Your task to perform on an android device: Search for the best rated vacuums on Target Image 0: 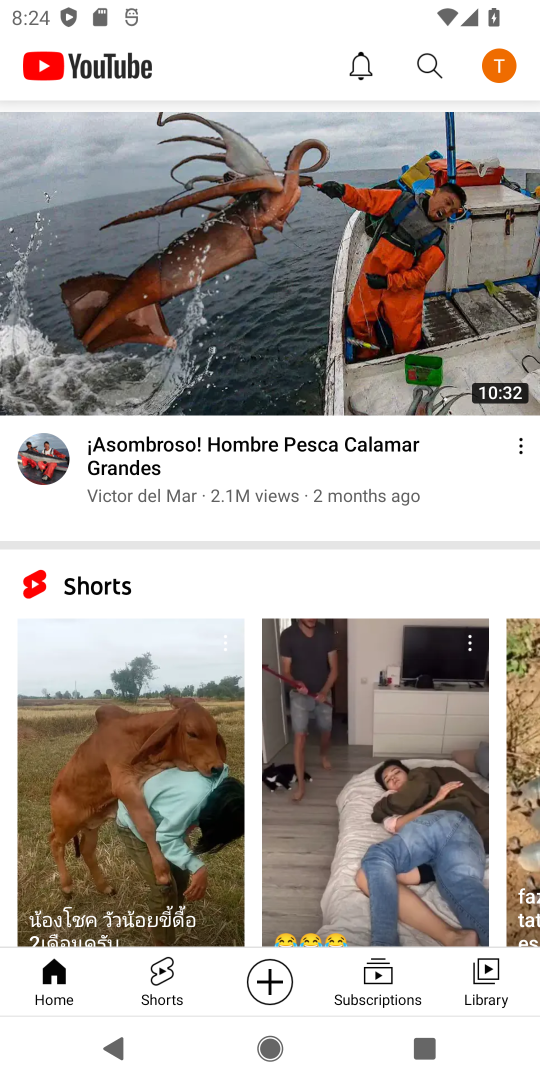
Step 0: press home button
Your task to perform on an android device: Search for the best rated vacuums on Target Image 1: 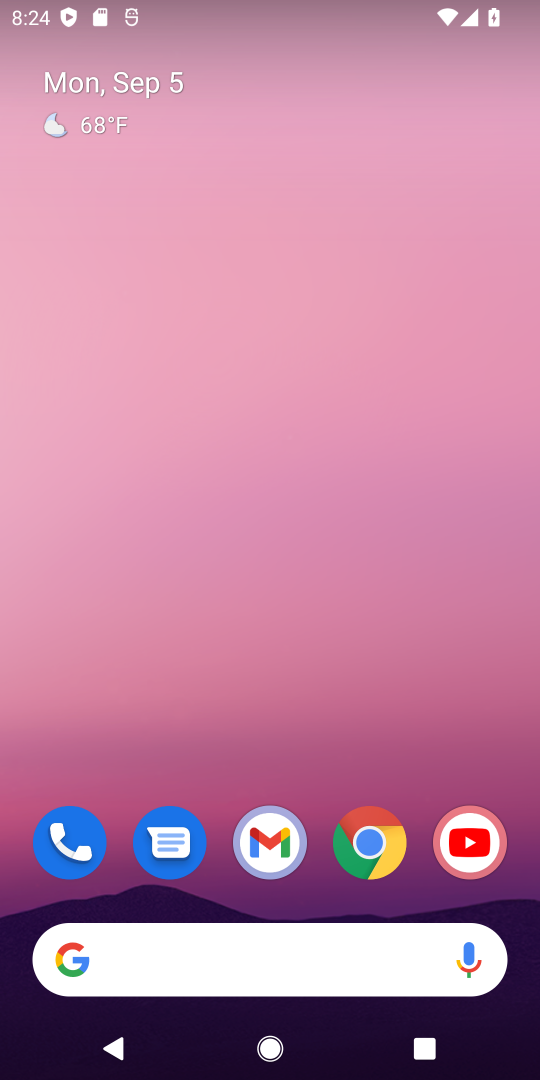
Step 1: click (362, 844)
Your task to perform on an android device: Search for the best rated vacuums on Target Image 2: 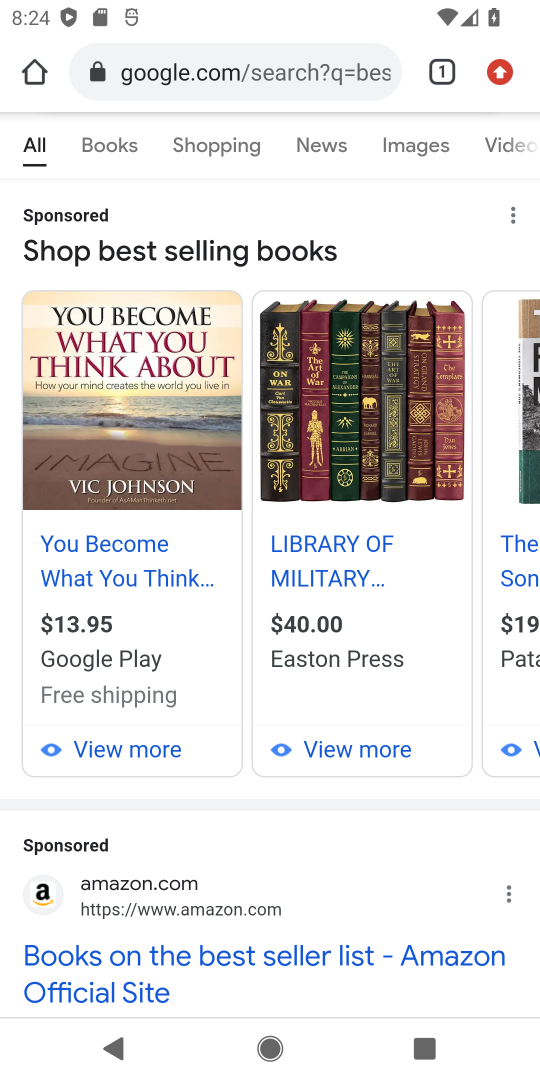
Step 2: click (345, 79)
Your task to perform on an android device: Search for the best rated vacuums on Target Image 3: 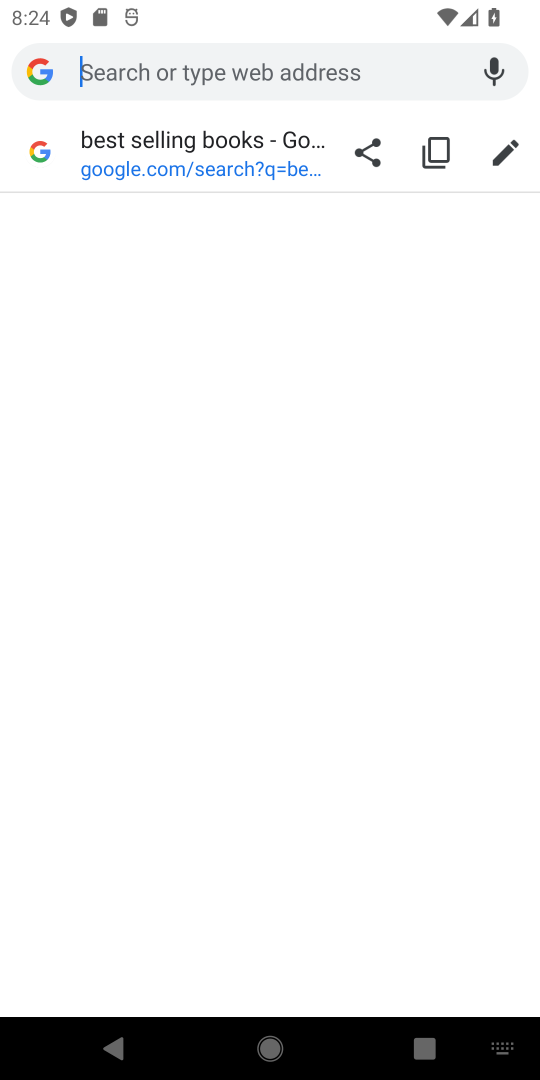
Step 3: click (365, 70)
Your task to perform on an android device: Search for the best rated vacuums on Target Image 4: 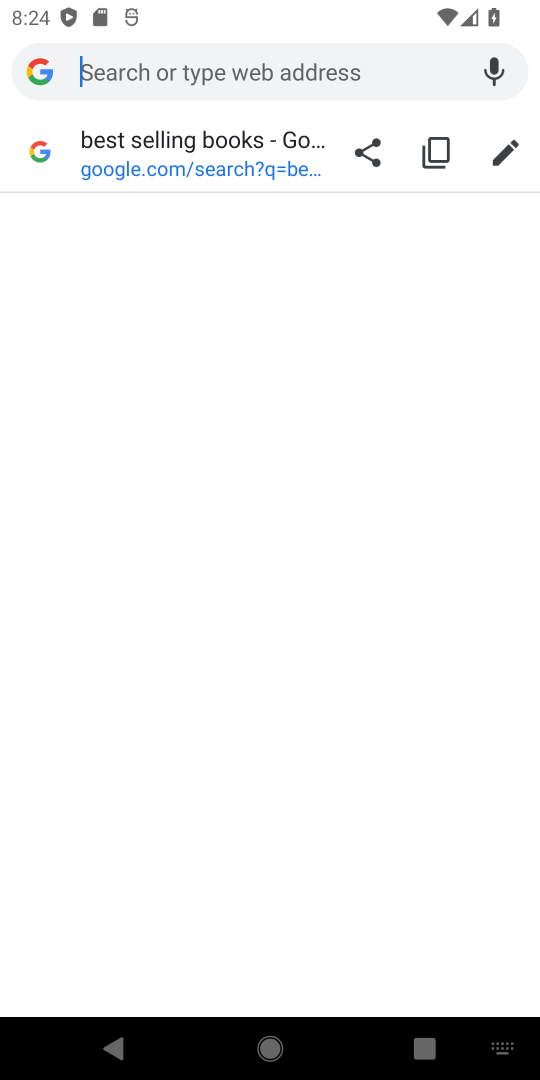
Step 4: type "Target"
Your task to perform on an android device: Search for the best rated vacuums on Target Image 5: 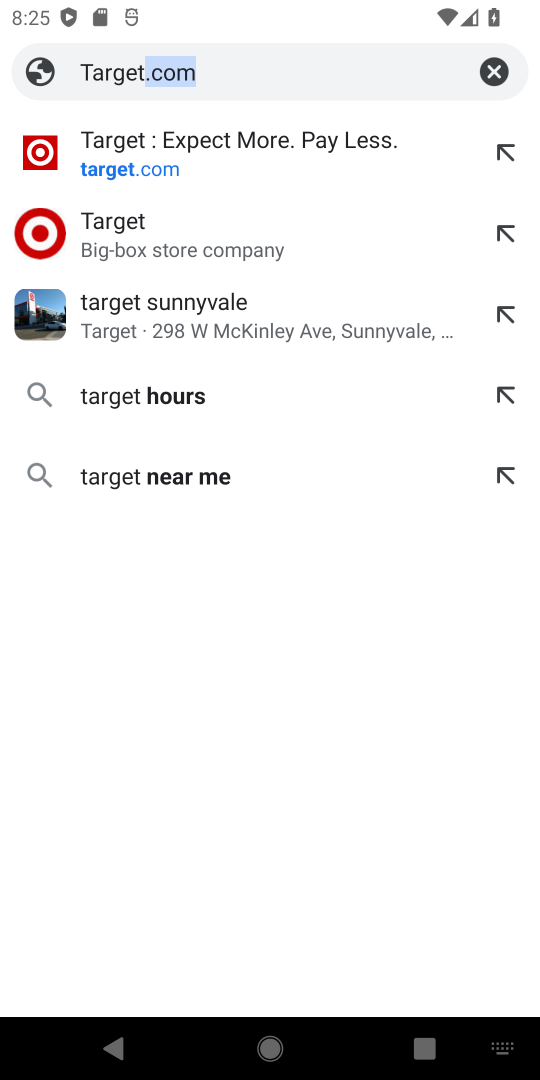
Step 5: click (158, 243)
Your task to perform on an android device: Search for the best rated vacuums on Target Image 6: 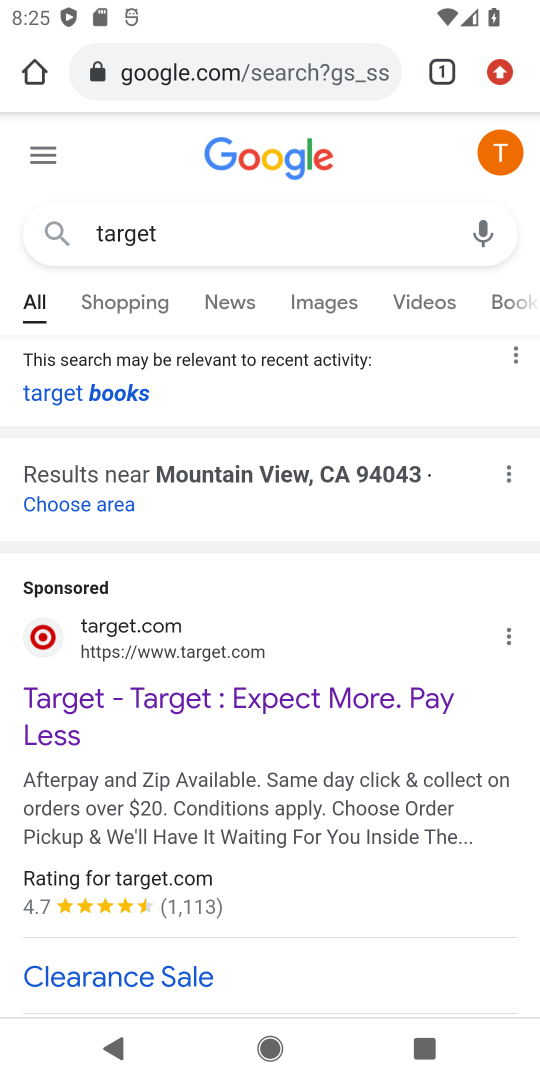
Step 6: drag from (193, 733) to (431, 425)
Your task to perform on an android device: Search for the best rated vacuums on Target Image 7: 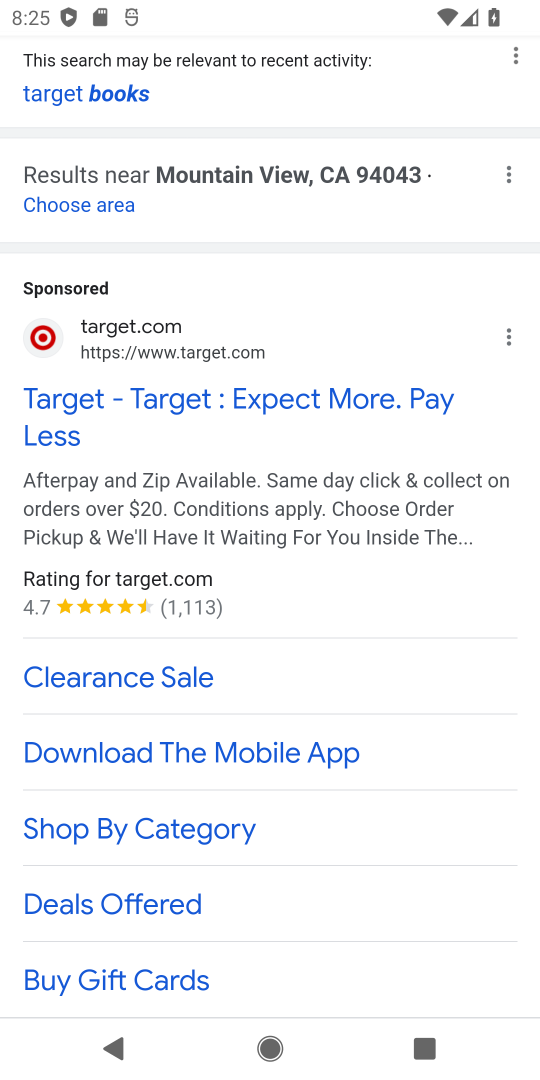
Step 7: drag from (298, 951) to (481, 519)
Your task to perform on an android device: Search for the best rated vacuums on Target Image 8: 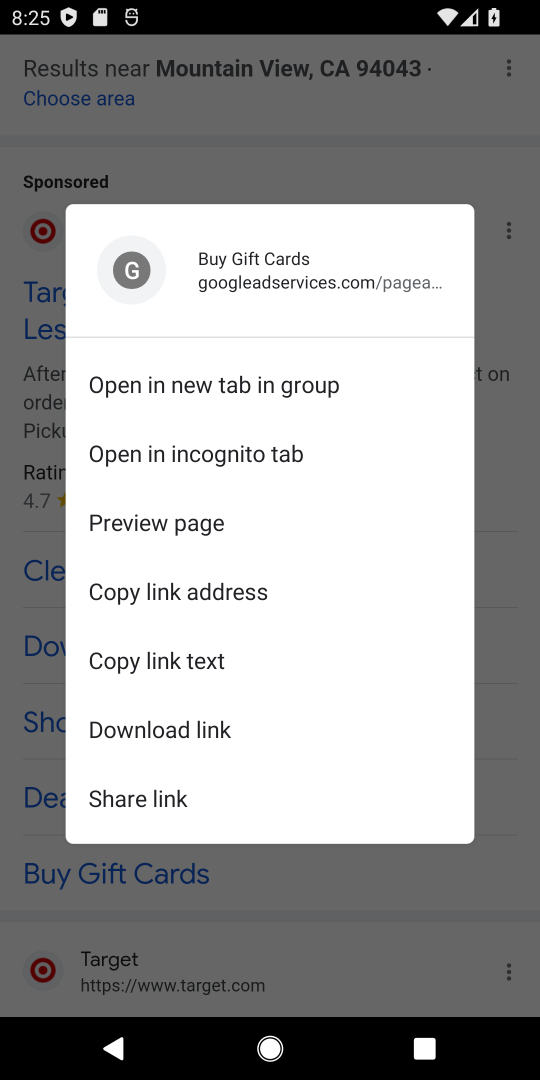
Step 8: click (513, 486)
Your task to perform on an android device: Search for the best rated vacuums on Target Image 9: 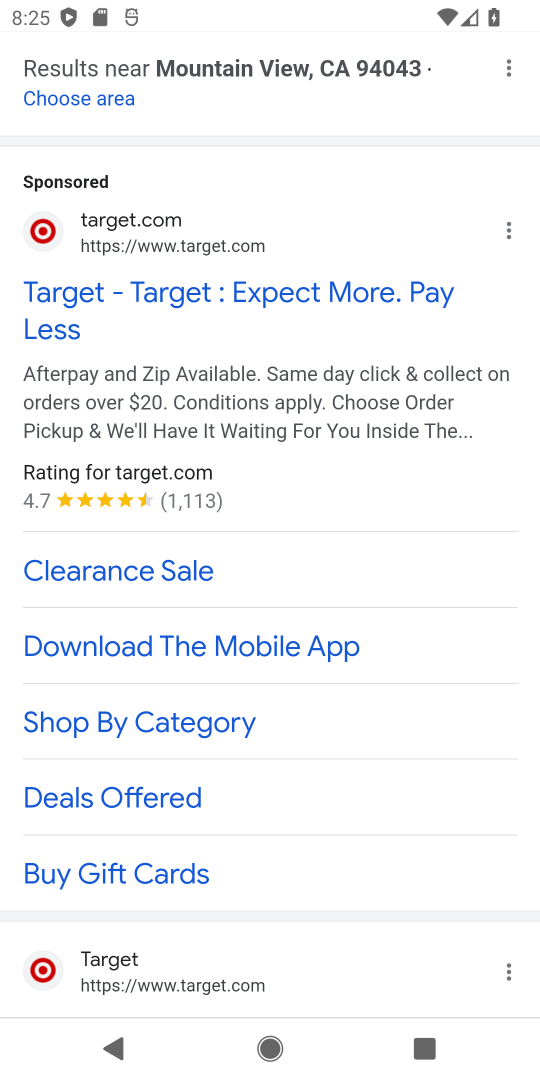
Step 9: drag from (421, 774) to (470, 622)
Your task to perform on an android device: Search for the best rated vacuums on Target Image 10: 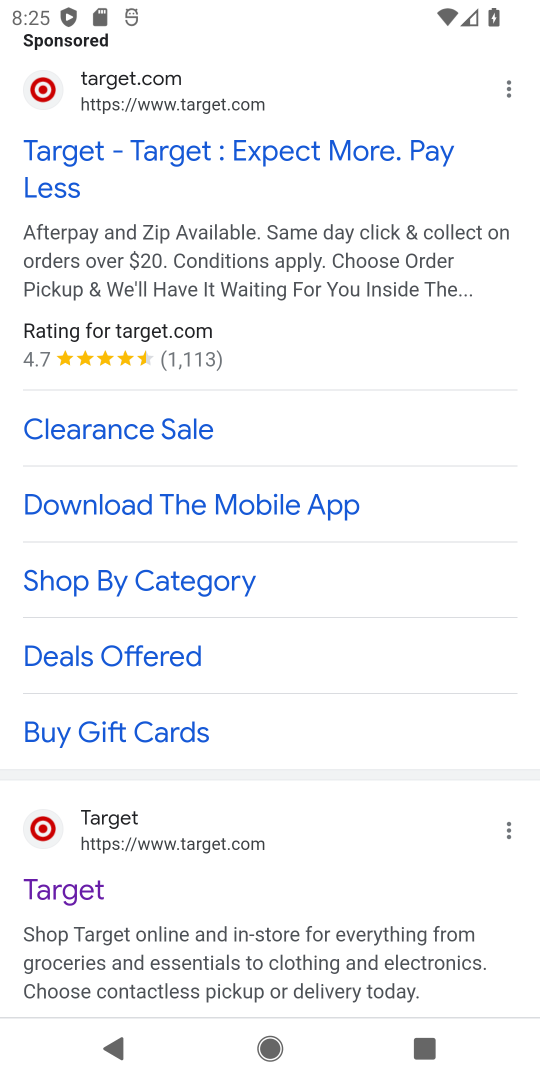
Step 10: click (72, 911)
Your task to perform on an android device: Search for the best rated vacuums on Target Image 11: 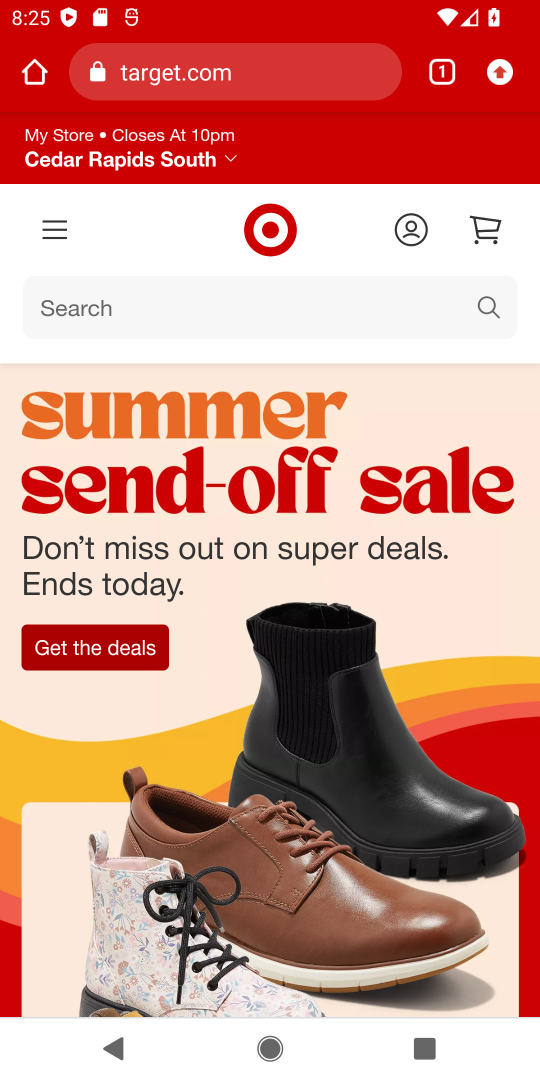
Step 11: click (327, 310)
Your task to perform on an android device: Search for the best rated vacuums on Target Image 12: 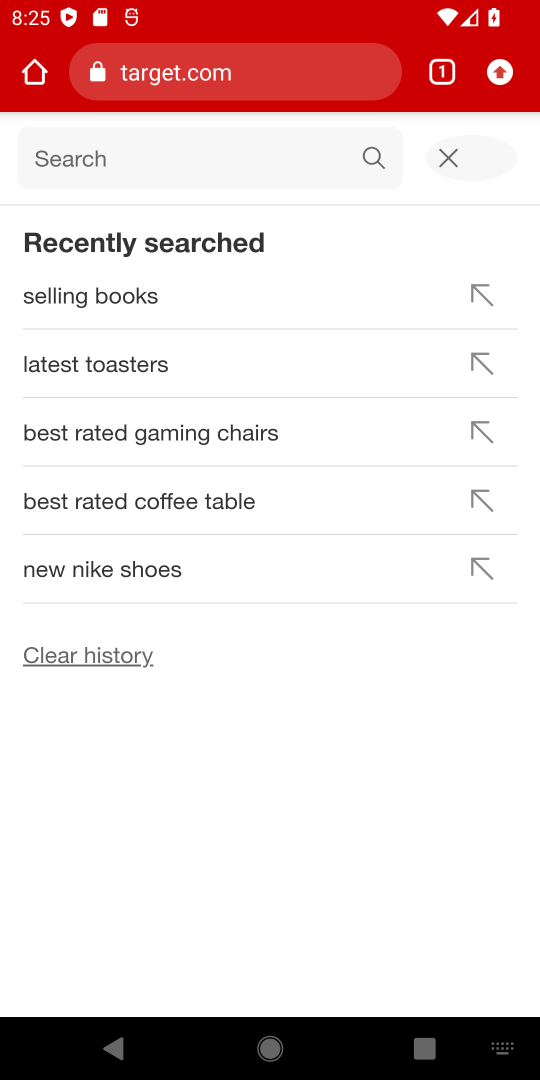
Step 12: type "best rated vacuums"
Your task to perform on an android device: Search for the best rated vacuums on Target Image 13: 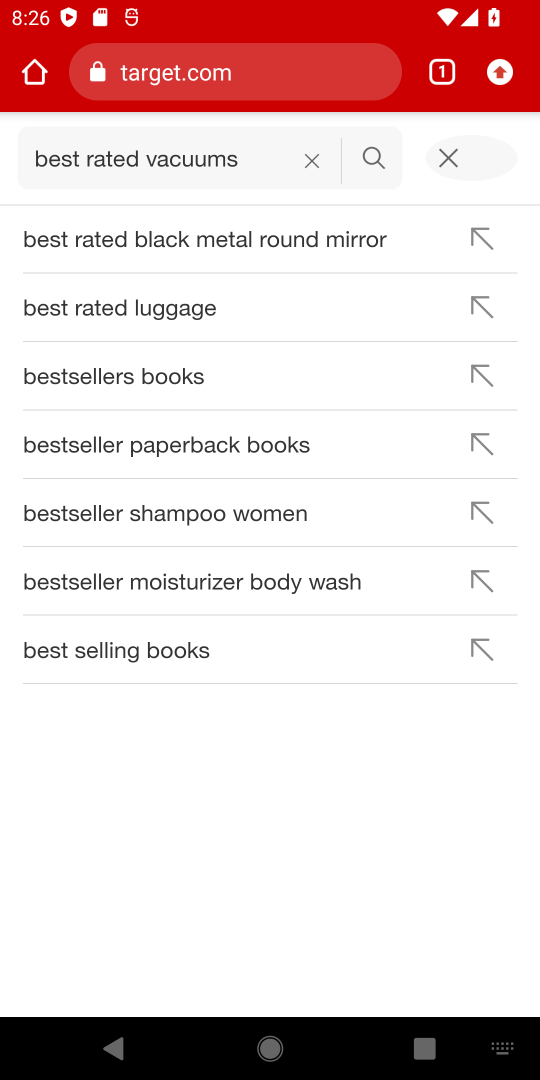
Step 13: click (373, 162)
Your task to perform on an android device: Search for the best rated vacuums on Target Image 14: 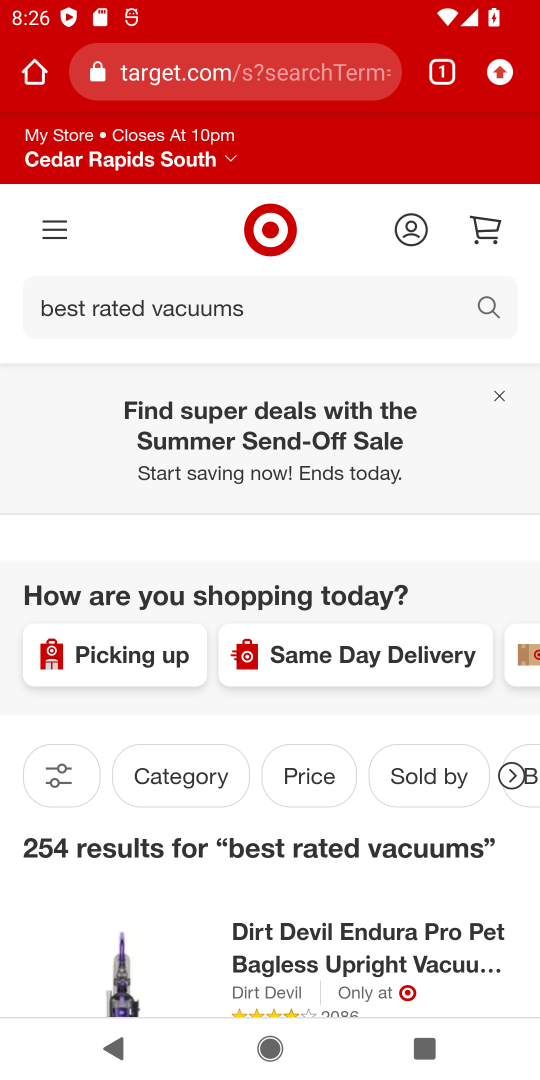
Step 14: task complete